Your task to perform on an android device: Search for Mexican restaurants on Maps Image 0: 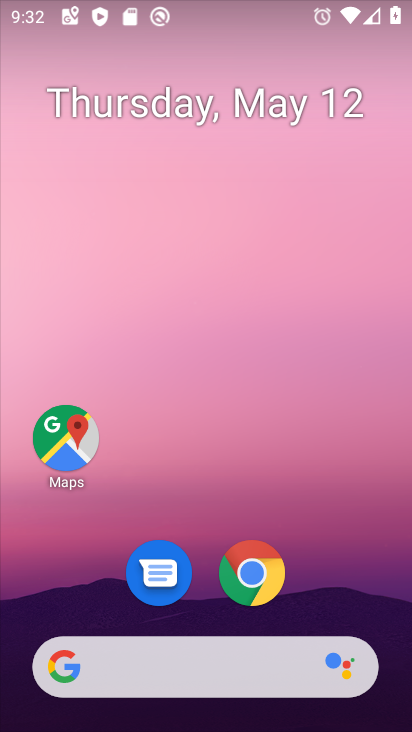
Step 0: click (63, 445)
Your task to perform on an android device: Search for Mexican restaurants on Maps Image 1: 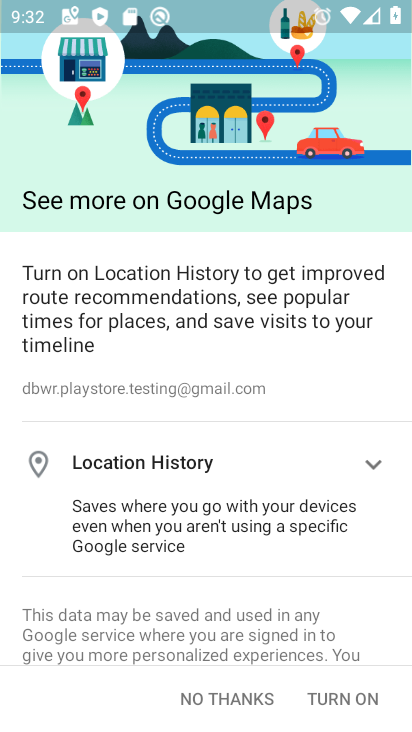
Step 1: click (247, 702)
Your task to perform on an android device: Search for Mexican restaurants on Maps Image 2: 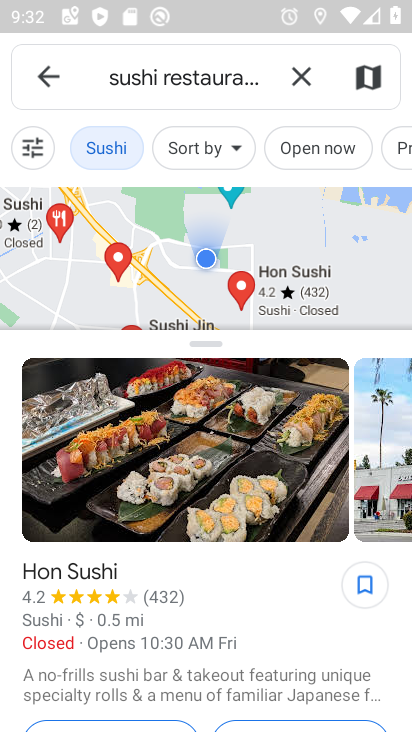
Step 2: click (295, 77)
Your task to perform on an android device: Search for Mexican restaurants on Maps Image 3: 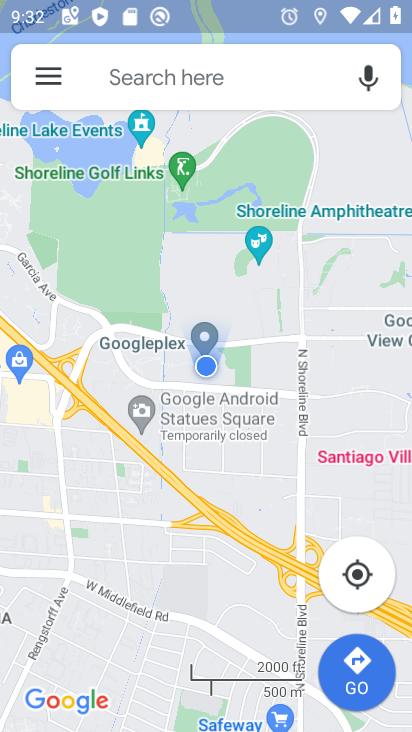
Step 3: click (265, 82)
Your task to perform on an android device: Search for Mexican restaurants on Maps Image 4: 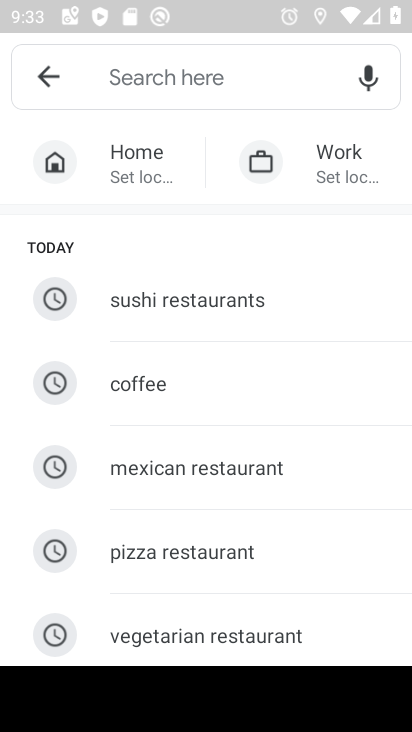
Step 4: type "Mexican restaurants"
Your task to perform on an android device: Search for Mexican restaurants on Maps Image 5: 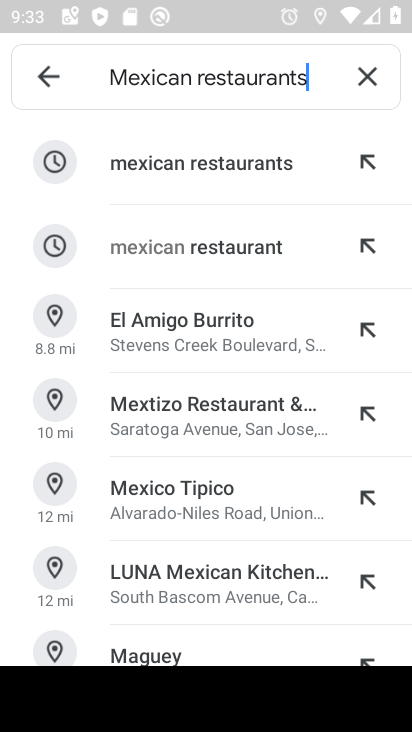
Step 5: click (276, 165)
Your task to perform on an android device: Search for Mexican restaurants on Maps Image 6: 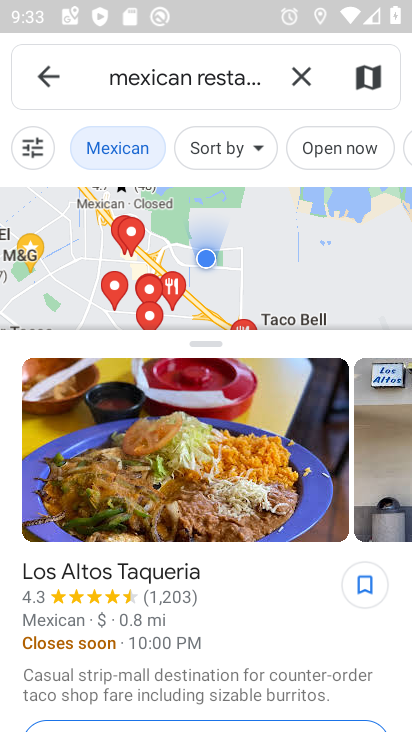
Step 6: task complete